Your task to perform on an android device: find photos in the google photos app Image 0: 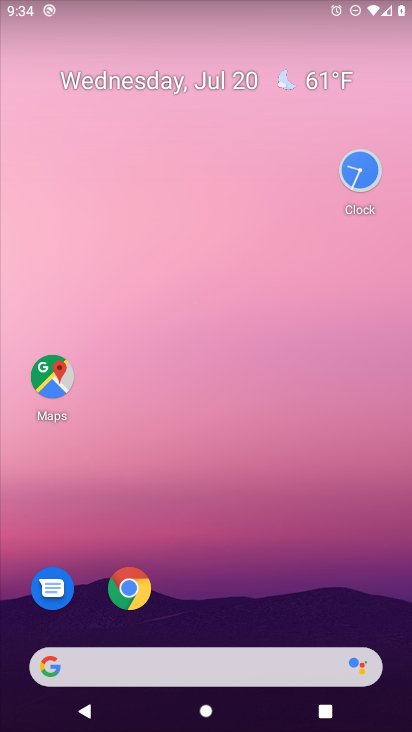
Step 0: drag from (19, 625) to (226, 17)
Your task to perform on an android device: find photos in the google photos app Image 1: 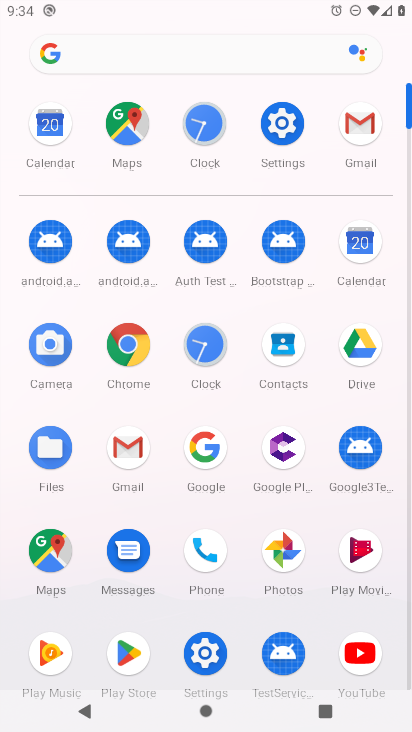
Step 1: click (287, 552)
Your task to perform on an android device: find photos in the google photos app Image 2: 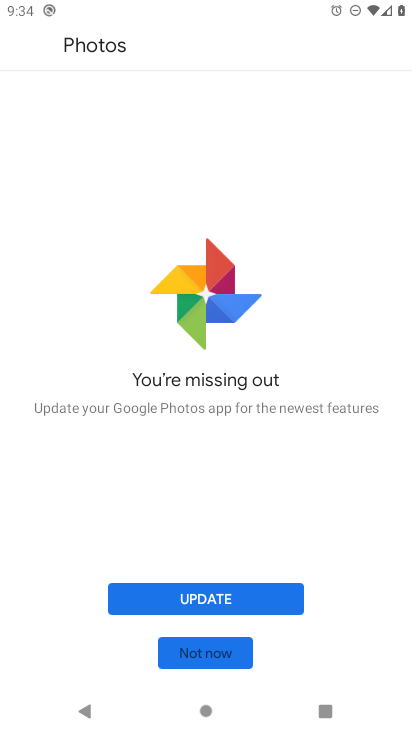
Step 2: click (208, 597)
Your task to perform on an android device: find photos in the google photos app Image 3: 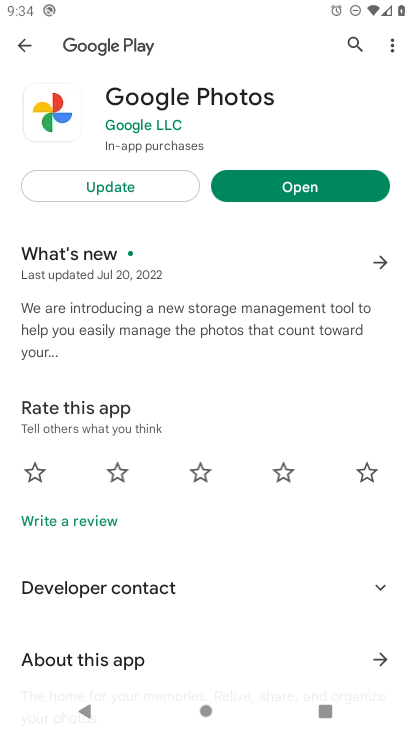
Step 3: click (292, 192)
Your task to perform on an android device: find photos in the google photos app Image 4: 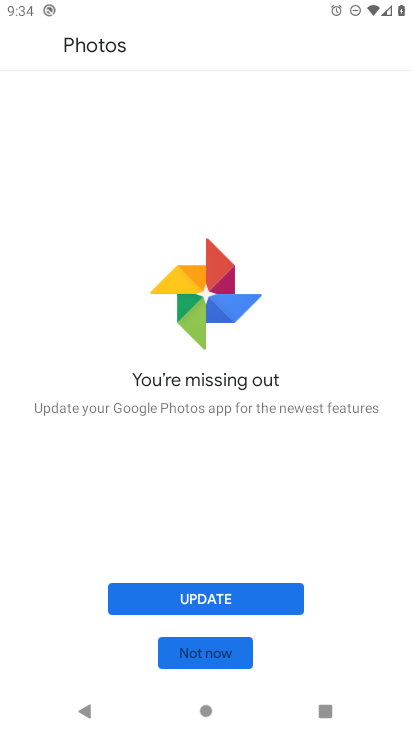
Step 4: task complete